Your task to perform on an android device: find snoozed emails in the gmail app Image 0: 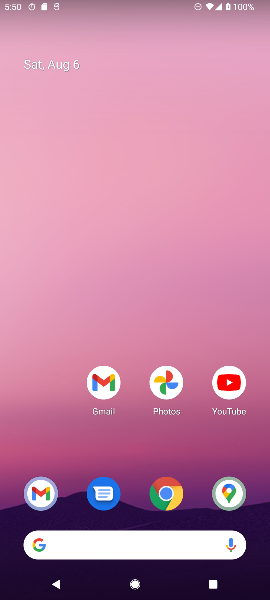
Step 0: drag from (149, 444) to (109, 166)
Your task to perform on an android device: find snoozed emails in the gmail app Image 1: 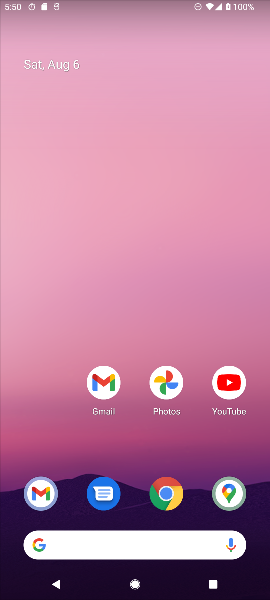
Step 1: click (130, 68)
Your task to perform on an android device: find snoozed emails in the gmail app Image 2: 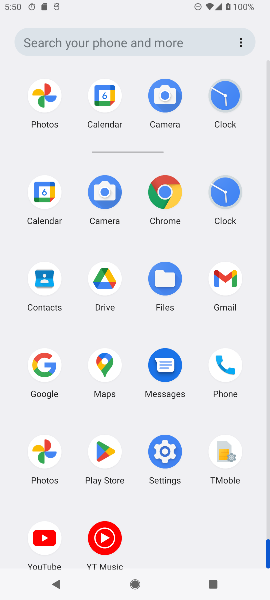
Step 2: drag from (156, 354) to (153, 184)
Your task to perform on an android device: find snoozed emails in the gmail app Image 3: 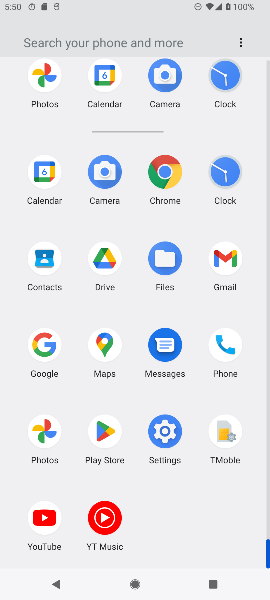
Step 3: click (213, 268)
Your task to perform on an android device: find snoozed emails in the gmail app Image 4: 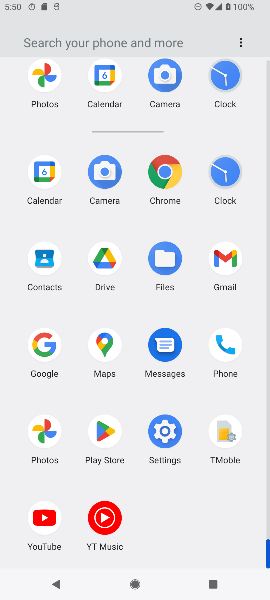
Step 4: click (216, 268)
Your task to perform on an android device: find snoozed emails in the gmail app Image 5: 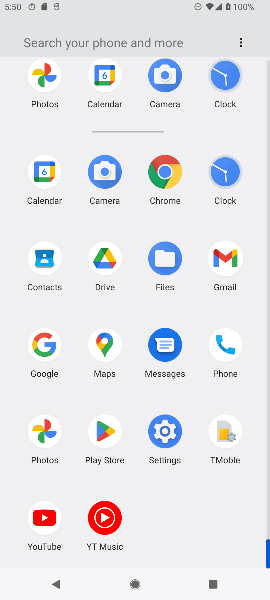
Step 5: click (219, 266)
Your task to perform on an android device: find snoozed emails in the gmail app Image 6: 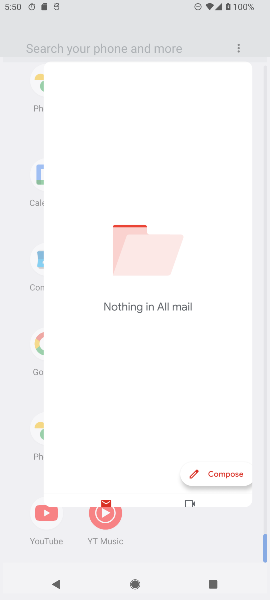
Step 6: click (220, 266)
Your task to perform on an android device: find snoozed emails in the gmail app Image 7: 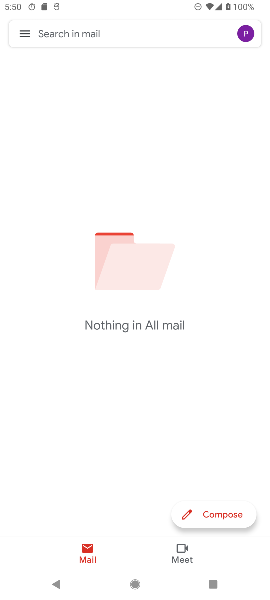
Step 7: click (27, 34)
Your task to perform on an android device: find snoozed emails in the gmail app Image 8: 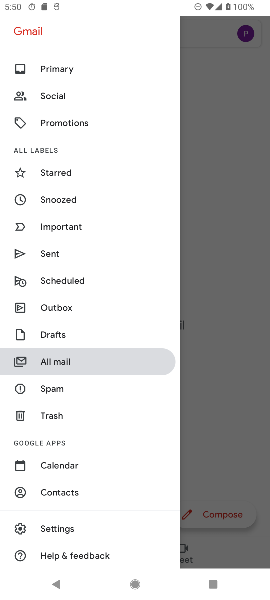
Step 8: click (53, 204)
Your task to perform on an android device: find snoozed emails in the gmail app Image 9: 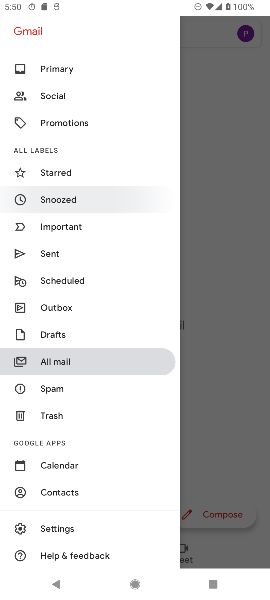
Step 9: click (53, 203)
Your task to perform on an android device: find snoozed emails in the gmail app Image 10: 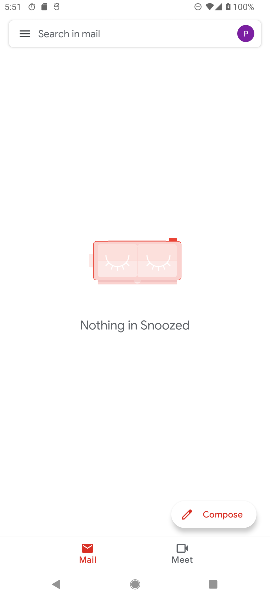
Step 10: click (23, 33)
Your task to perform on an android device: find snoozed emails in the gmail app Image 11: 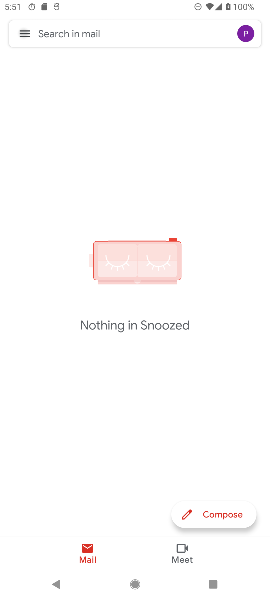
Step 11: click (22, 33)
Your task to perform on an android device: find snoozed emails in the gmail app Image 12: 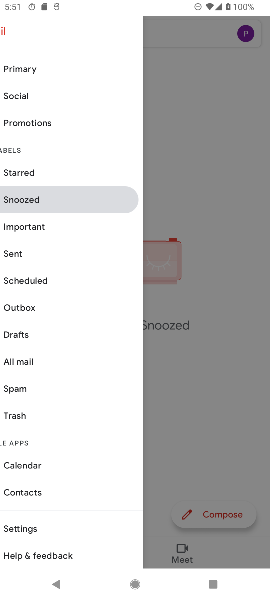
Step 12: click (22, 33)
Your task to perform on an android device: find snoozed emails in the gmail app Image 13: 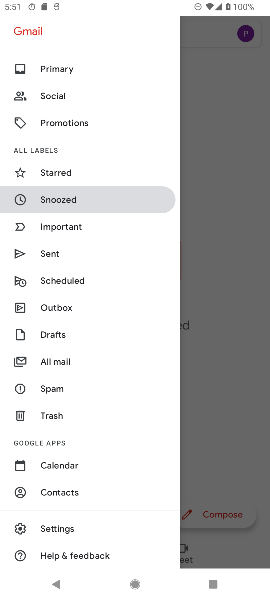
Step 13: click (82, 207)
Your task to perform on an android device: find snoozed emails in the gmail app Image 14: 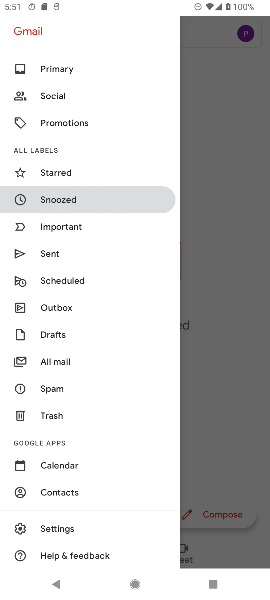
Step 14: click (82, 207)
Your task to perform on an android device: find snoozed emails in the gmail app Image 15: 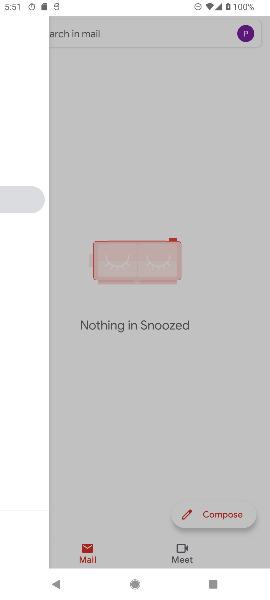
Step 15: click (82, 208)
Your task to perform on an android device: find snoozed emails in the gmail app Image 16: 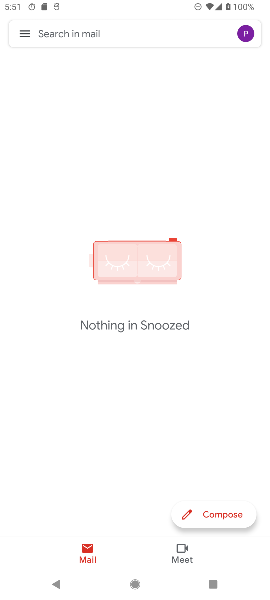
Step 16: task complete